Your task to perform on an android device: Add "razer thresher" to the cart on walmart Image 0: 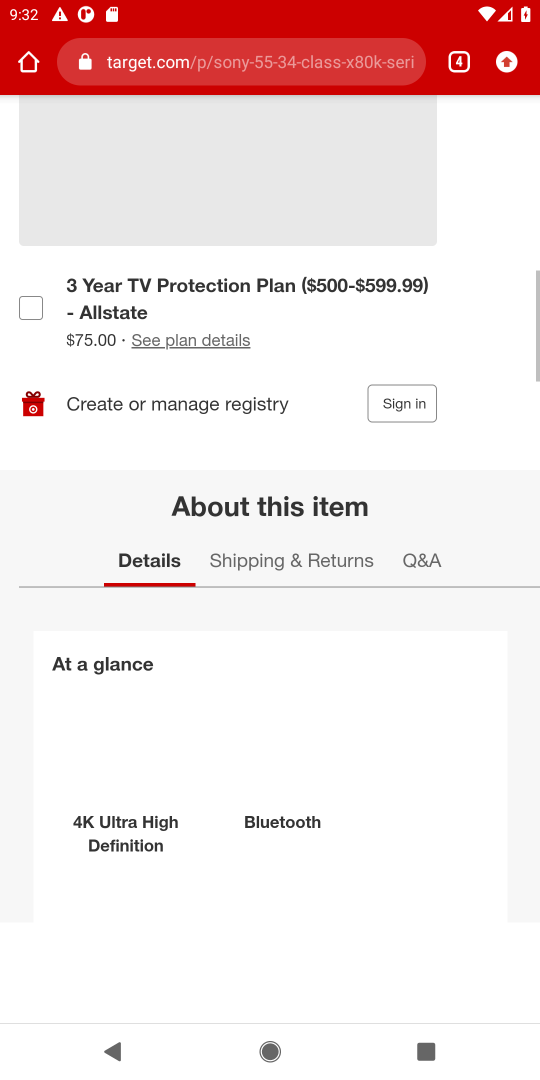
Step 0: press home button
Your task to perform on an android device: Add "razer thresher" to the cart on walmart Image 1: 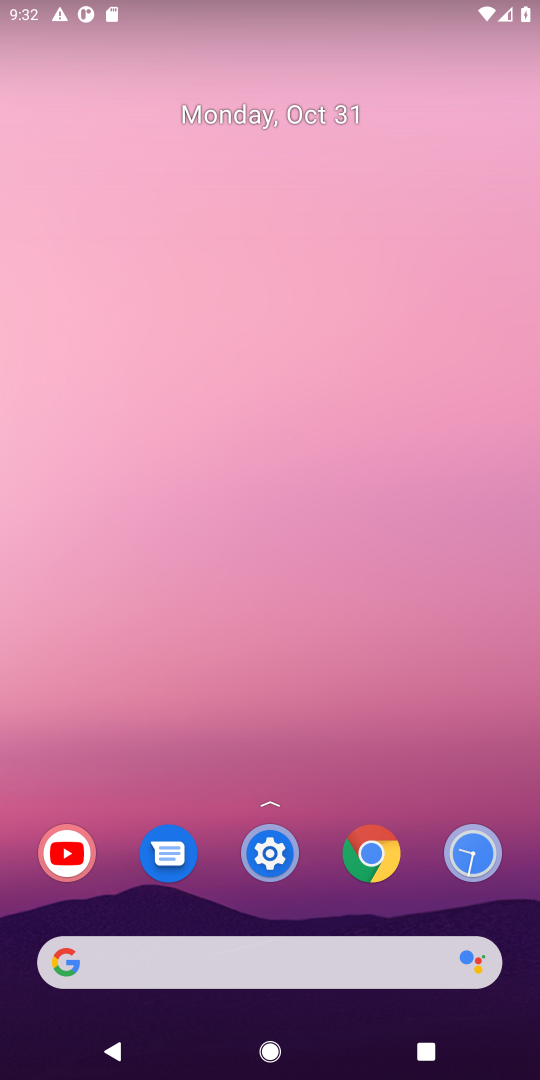
Step 1: click (310, 943)
Your task to perform on an android device: Add "razer thresher" to the cart on walmart Image 2: 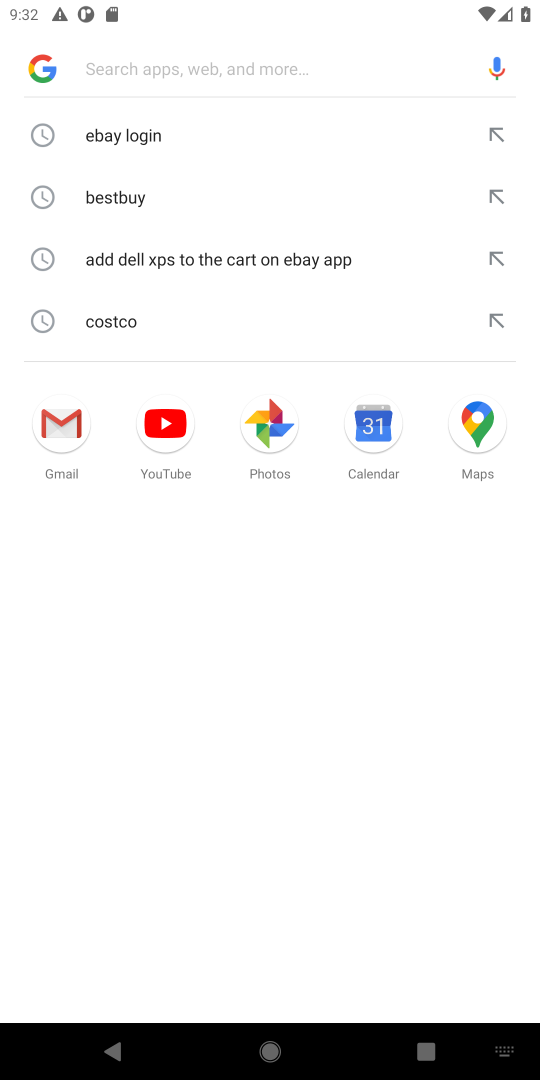
Step 2: type "walmart"
Your task to perform on an android device: Add "razer thresher" to the cart on walmart Image 3: 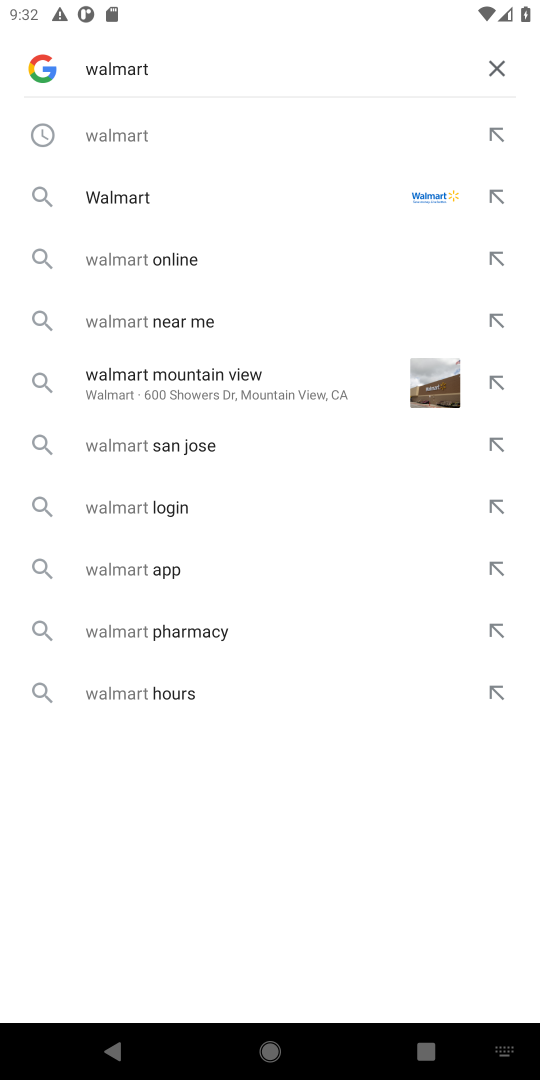
Step 3: click (144, 135)
Your task to perform on an android device: Add "razer thresher" to the cart on walmart Image 4: 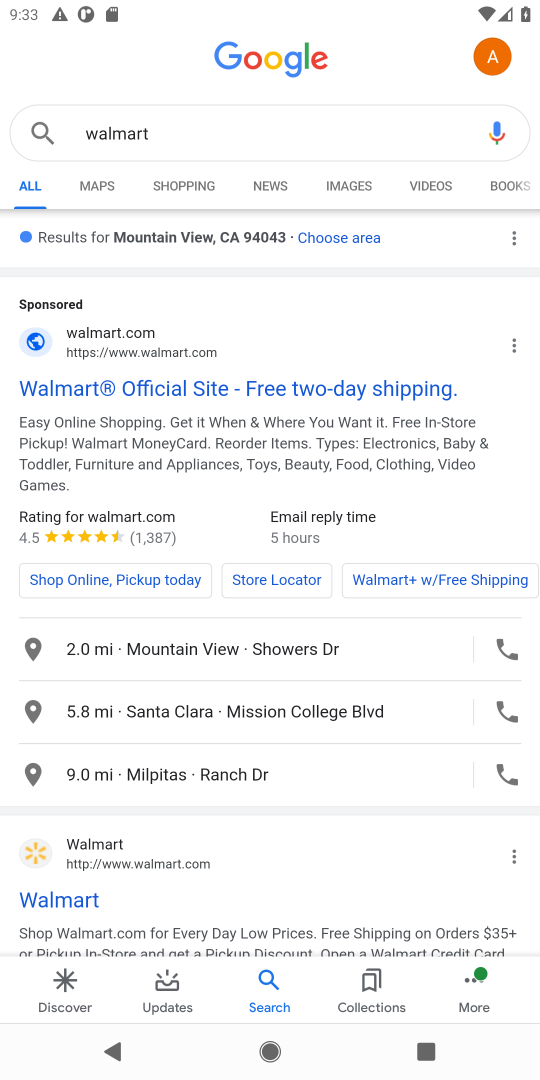
Step 4: click (66, 384)
Your task to perform on an android device: Add "razer thresher" to the cart on walmart Image 5: 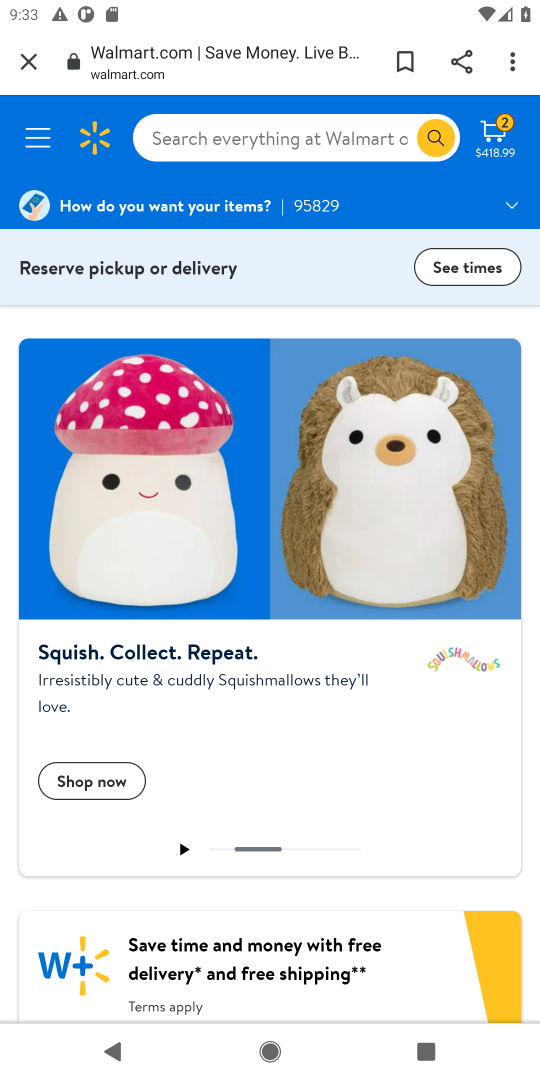
Step 5: click (263, 131)
Your task to perform on an android device: Add "razer thresher" to the cart on walmart Image 6: 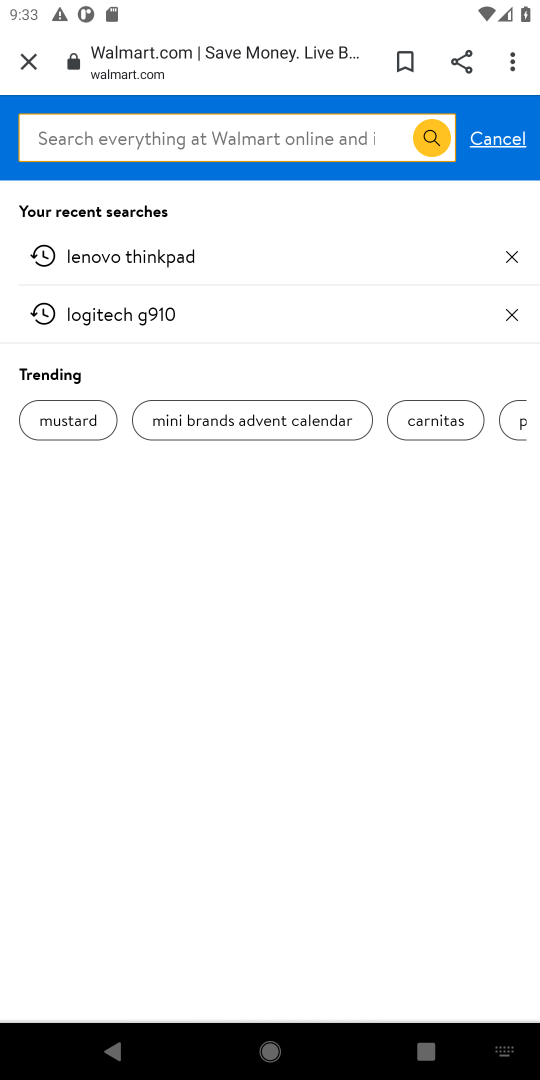
Step 6: type "razer thresher"
Your task to perform on an android device: Add "razer thresher" to the cart on walmart Image 7: 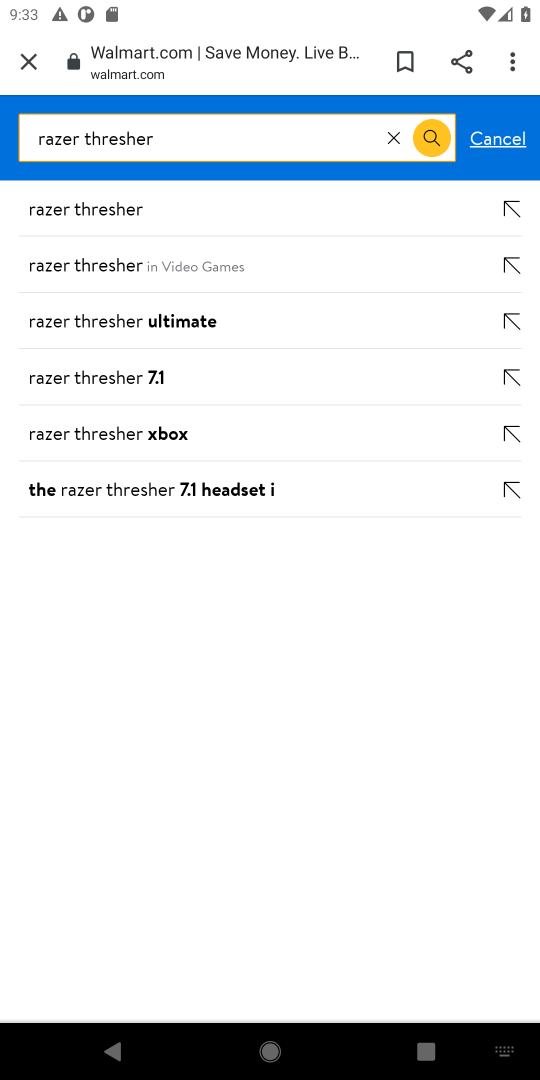
Step 7: click (127, 203)
Your task to perform on an android device: Add "razer thresher" to the cart on walmart Image 8: 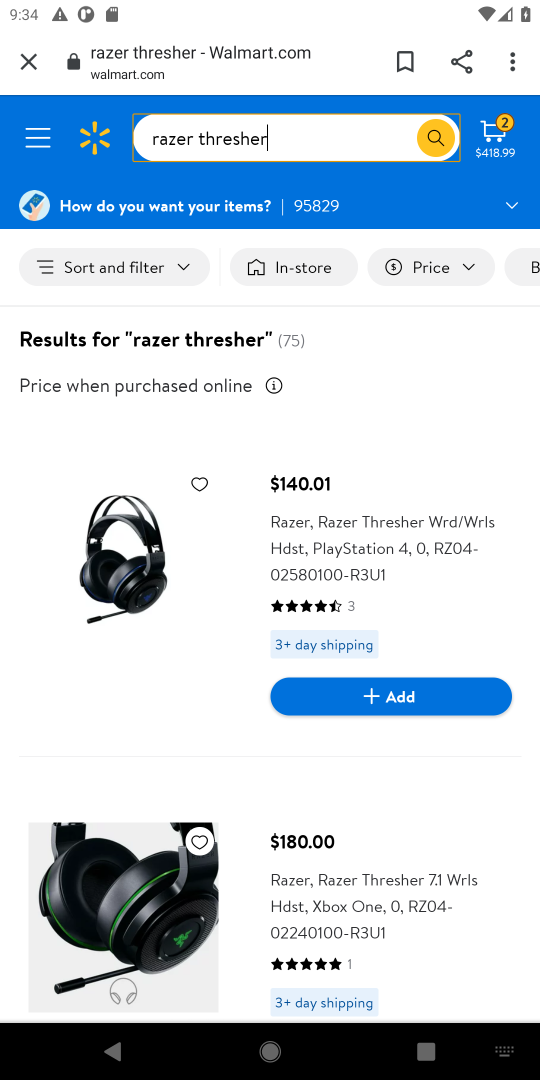
Step 8: click (382, 702)
Your task to perform on an android device: Add "razer thresher" to the cart on walmart Image 9: 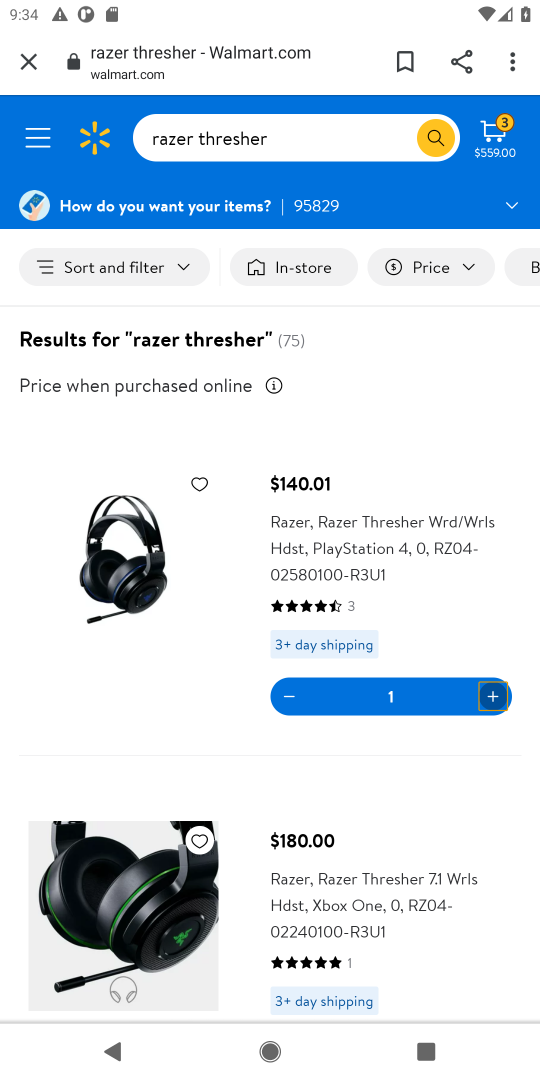
Step 9: task complete